Your task to perform on an android device: Add "dell xps" to the cart on bestbuy Image 0: 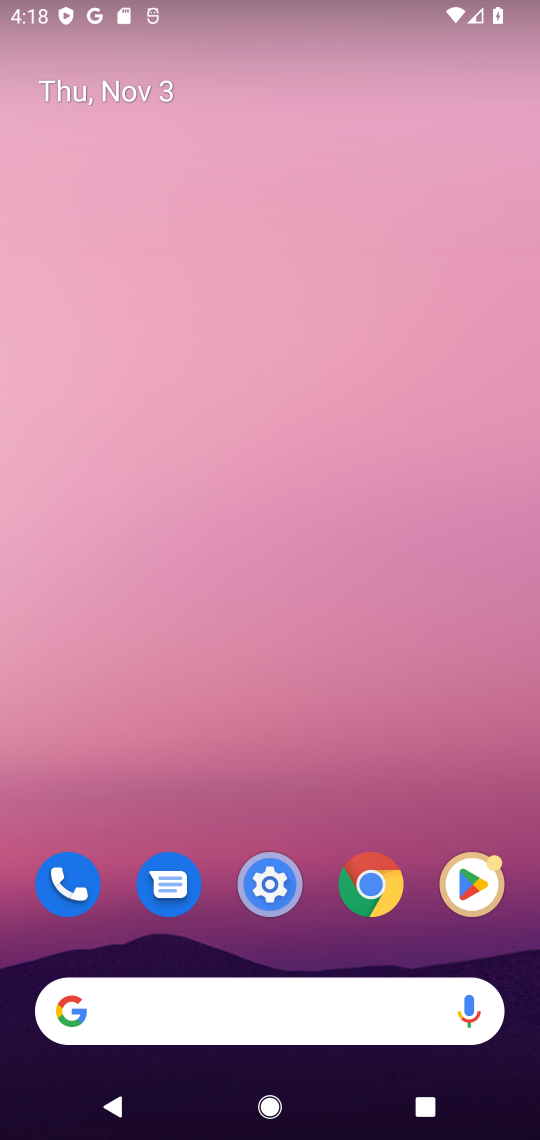
Step 0: press home button
Your task to perform on an android device: Add "dell xps" to the cart on bestbuy Image 1: 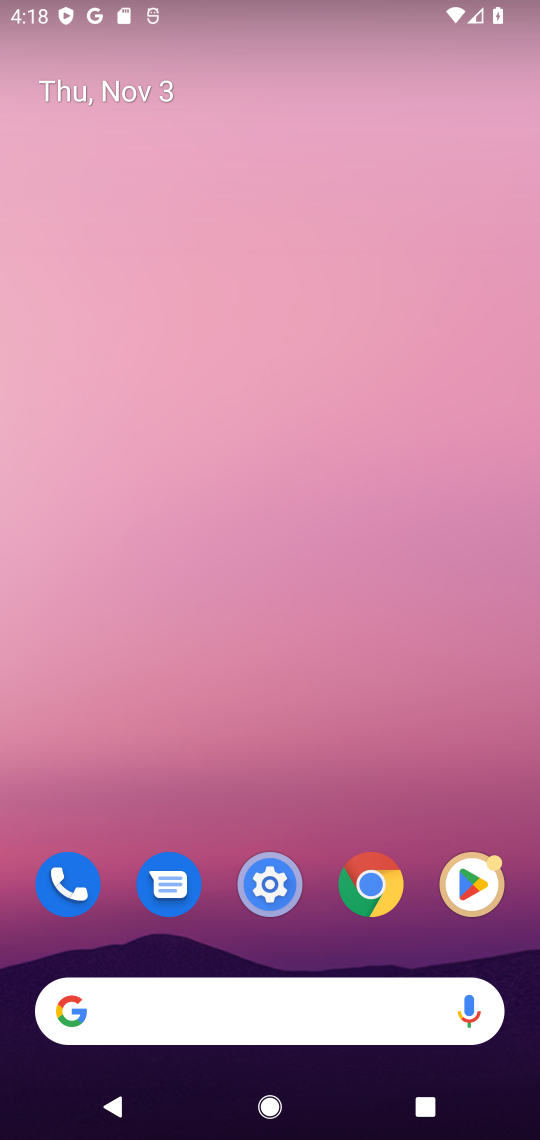
Step 1: click (108, 1002)
Your task to perform on an android device: Add "dell xps" to the cart on bestbuy Image 2: 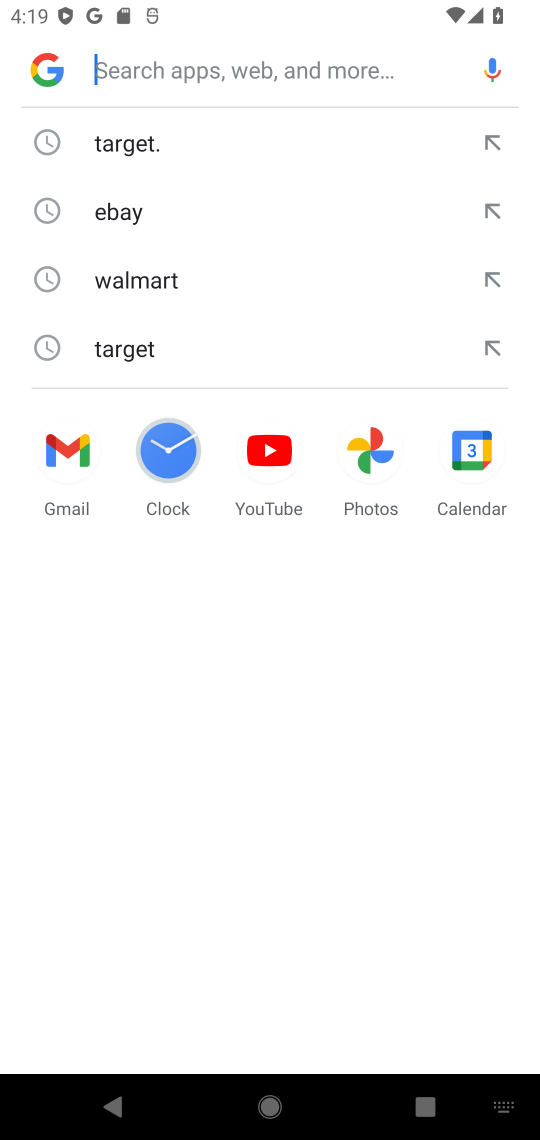
Step 2: type " bestbuy"
Your task to perform on an android device: Add "dell xps" to the cart on bestbuy Image 3: 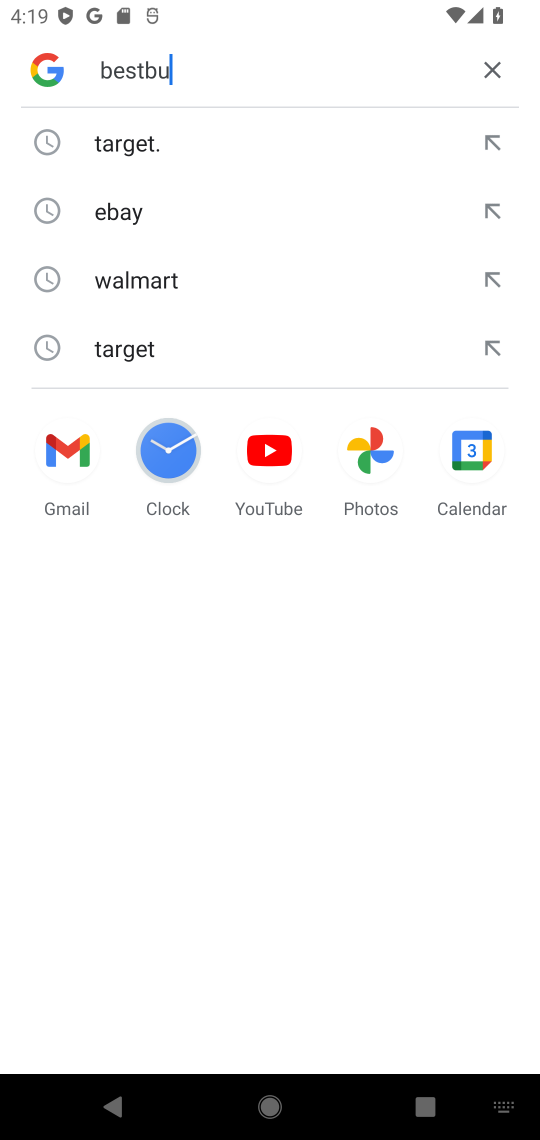
Step 3: press enter
Your task to perform on an android device: Add "dell xps" to the cart on bestbuy Image 4: 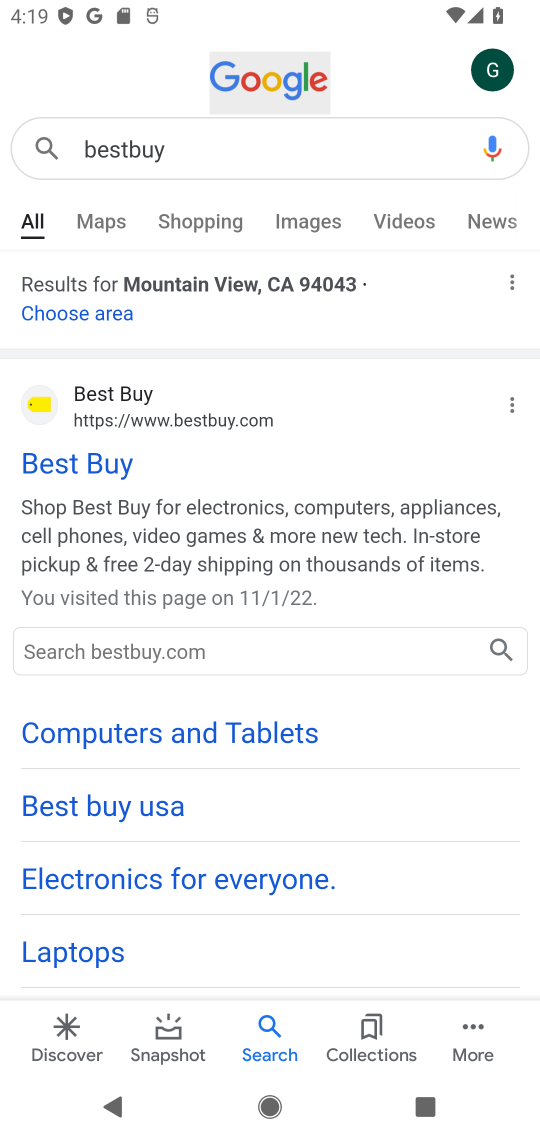
Step 4: click (74, 460)
Your task to perform on an android device: Add "dell xps" to the cart on bestbuy Image 5: 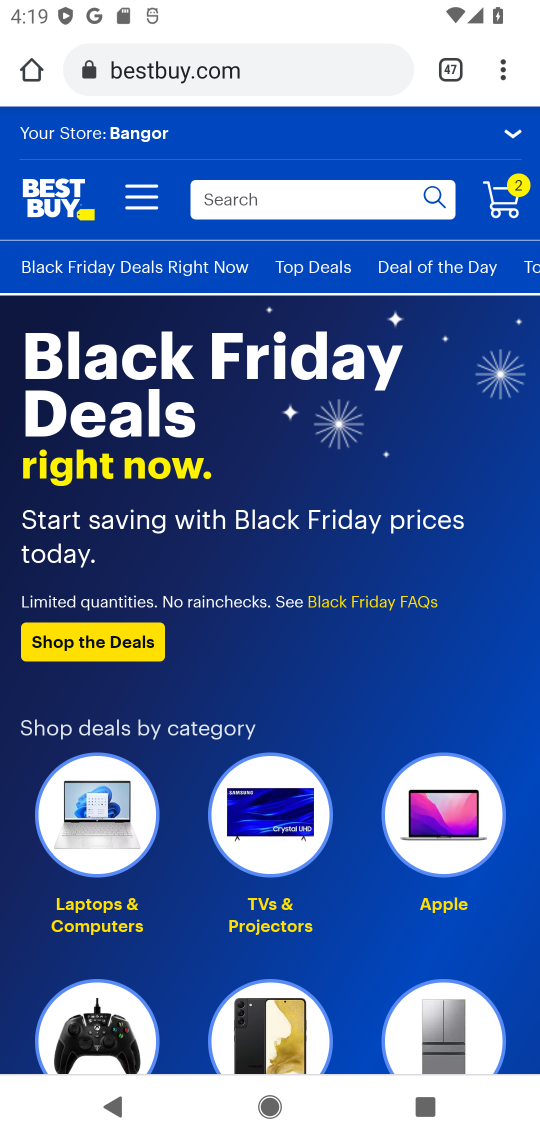
Step 5: click (210, 193)
Your task to perform on an android device: Add "dell xps" to the cart on bestbuy Image 6: 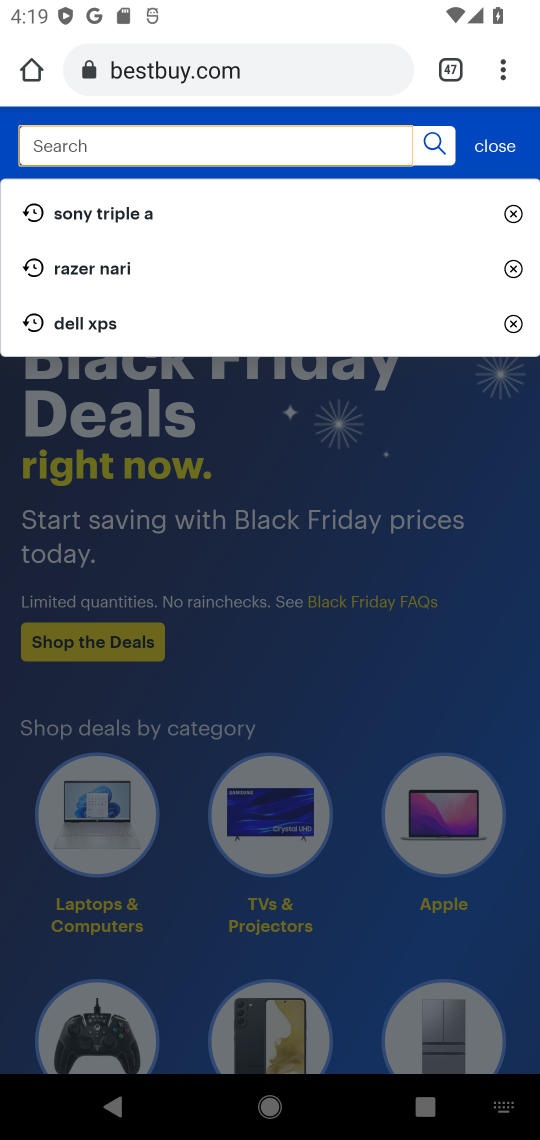
Step 6: press enter
Your task to perform on an android device: Add "dell xps" to the cart on bestbuy Image 7: 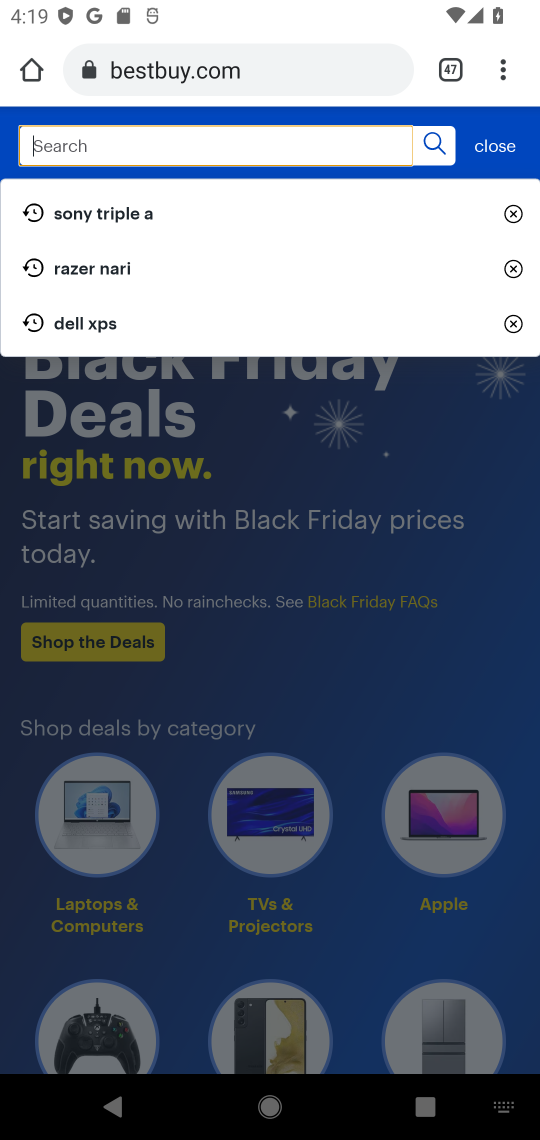
Step 7: type "dell xps"
Your task to perform on an android device: Add "dell xps" to the cart on bestbuy Image 8: 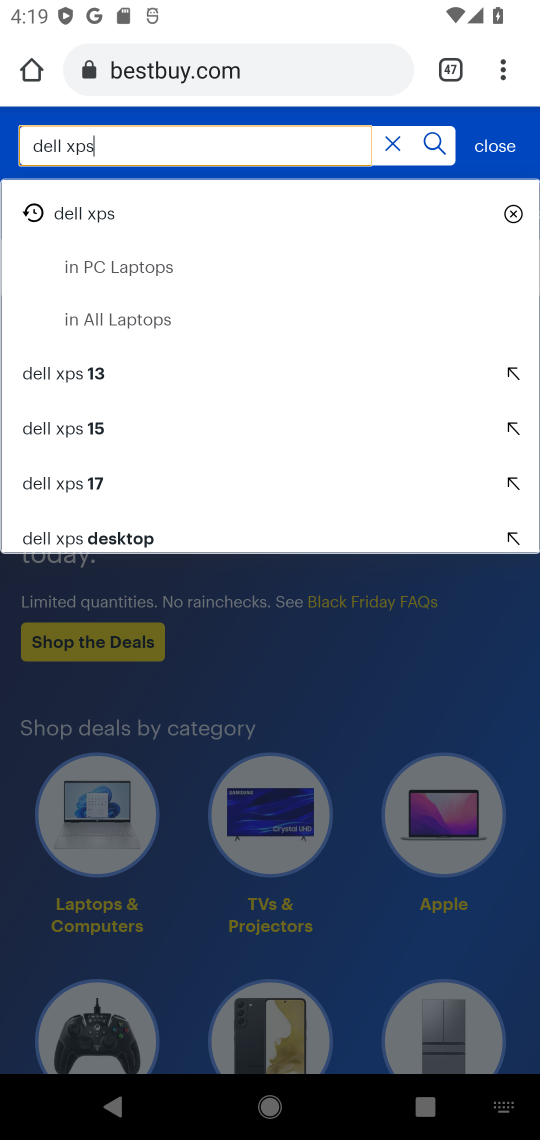
Step 8: press enter
Your task to perform on an android device: Add "dell xps" to the cart on bestbuy Image 9: 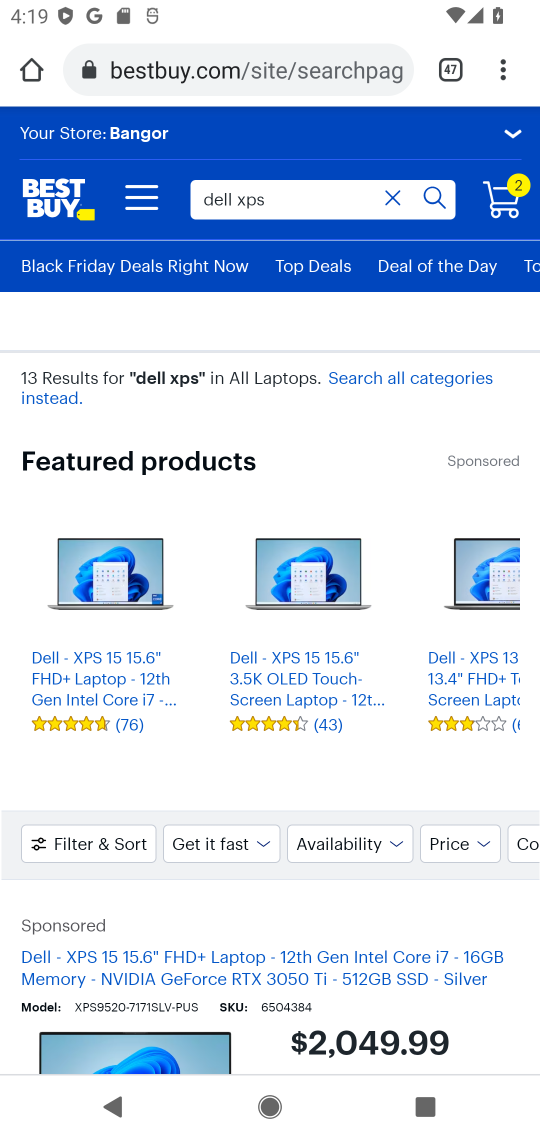
Step 9: drag from (349, 960) to (385, 443)
Your task to perform on an android device: Add "dell xps" to the cart on bestbuy Image 10: 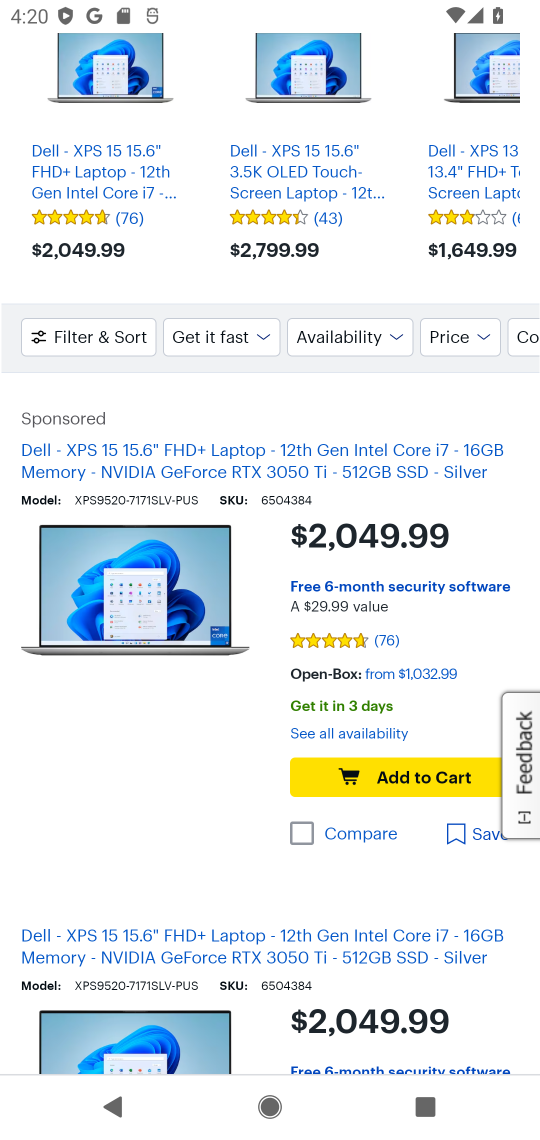
Step 10: click (404, 771)
Your task to perform on an android device: Add "dell xps" to the cart on bestbuy Image 11: 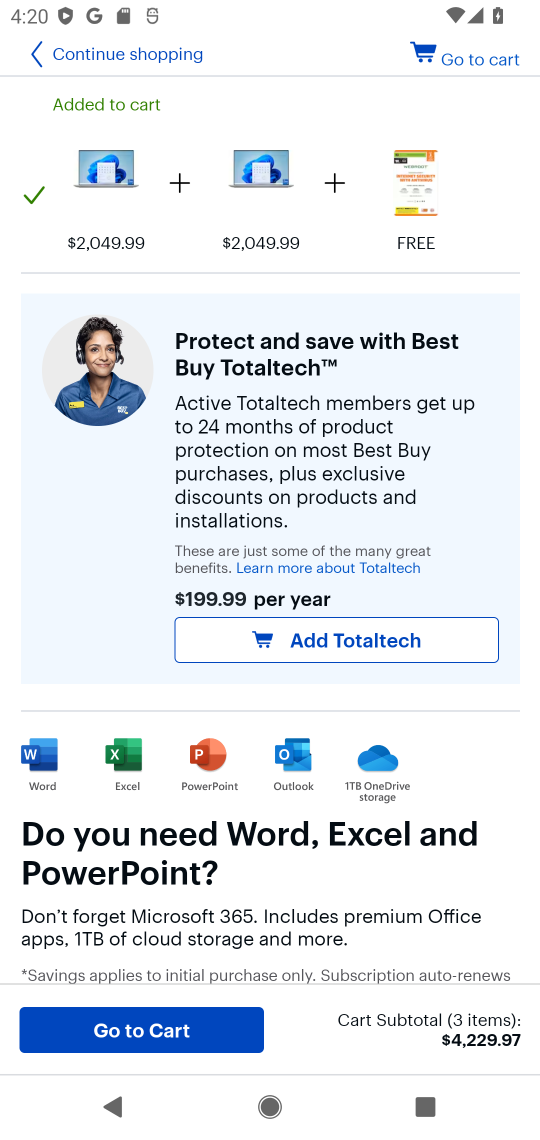
Step 11: click (99, 1032)
Your task to perform on an android device: Add "dell xps" to the cart on bestbuy Image 12: 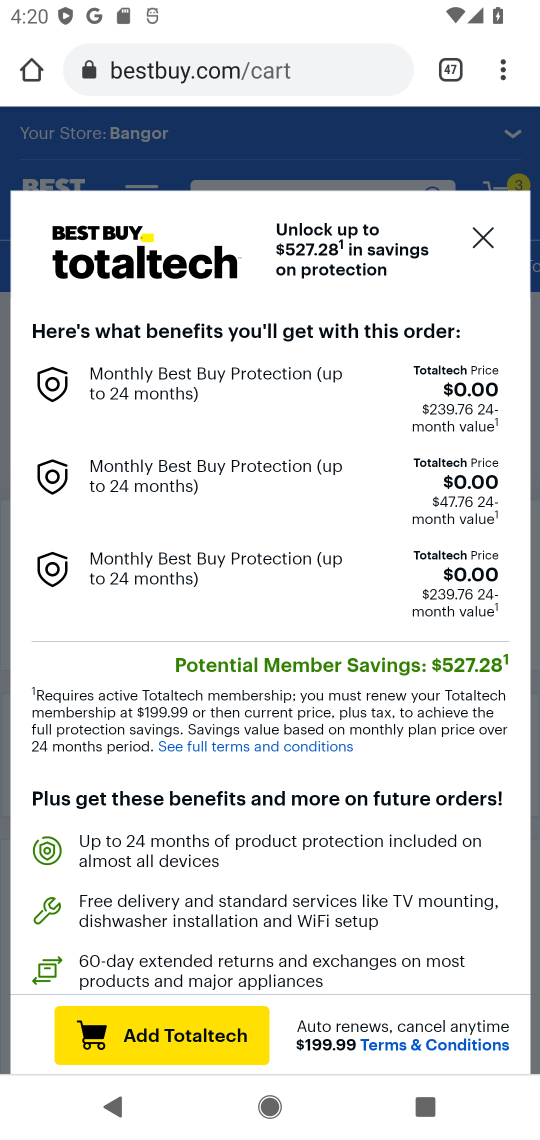
Step 12: task complete